Your task to perform on an android device: change your default location settings in chrome Image 0: 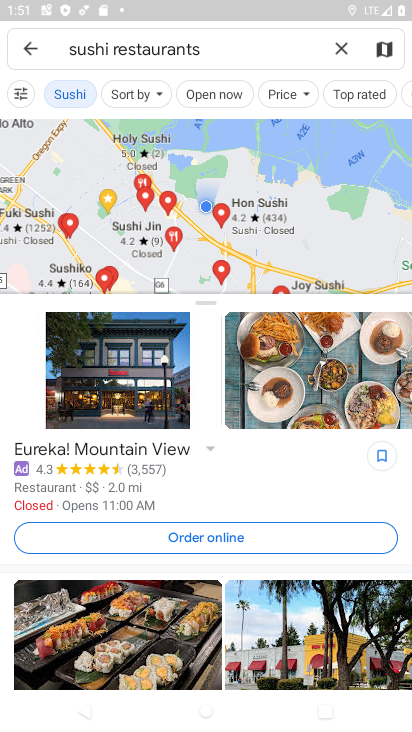
Step 0: press home button
Your task to perform on an android device: change your default location settings in chrome Image 1: 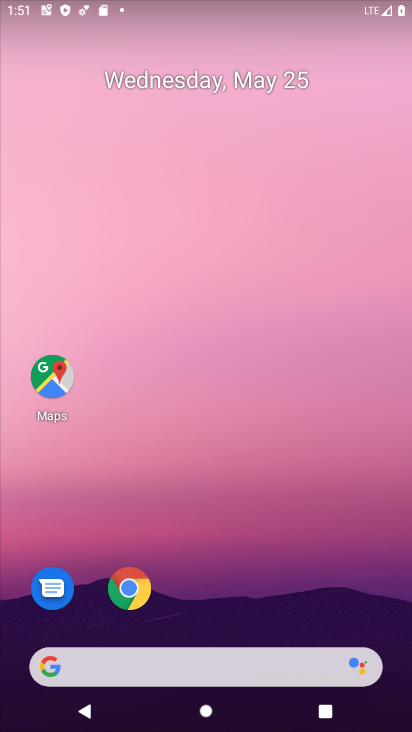
Step 1: click (131, 588)
Your task to perform on an android device: change your default location settings in chrome Image 2: 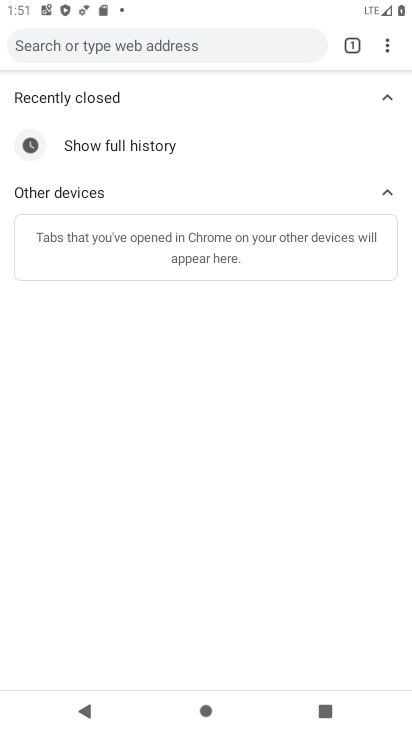
Step 2: click (386, 49)
Your task to perform on an android device: change your default location settings in chrome Image 3: 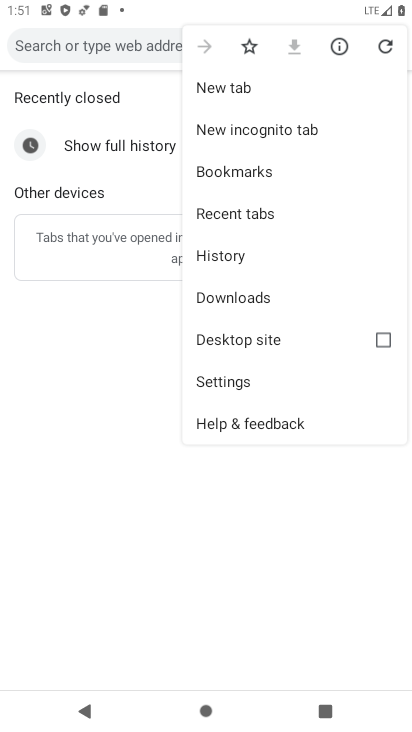
Step 3: click (235, 385)
Your task to perform on an android device: change your default location settings in chrome Image 4: 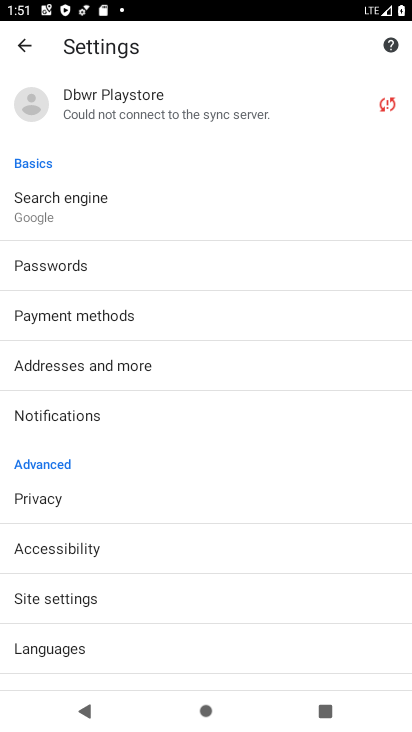
Step 4: click (81, 600)
Your task to perform on an android device: change your default location settings in chrome Image 5: 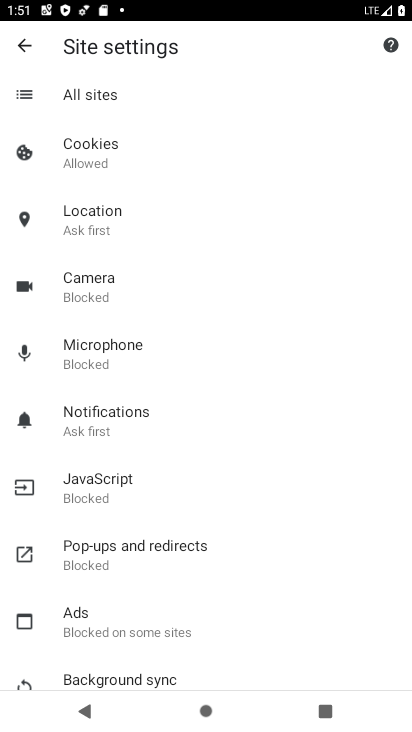
Step 5: click (86, 231)
Your task to perform on an android device: change your default location settings in chrome Image 6: 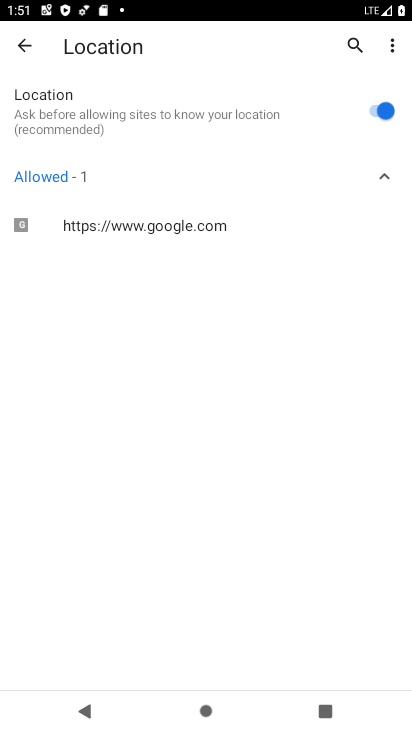
Step 6: click (378, 114)
Your task to perform on an android device: change your default location settings in chrome Image 7: 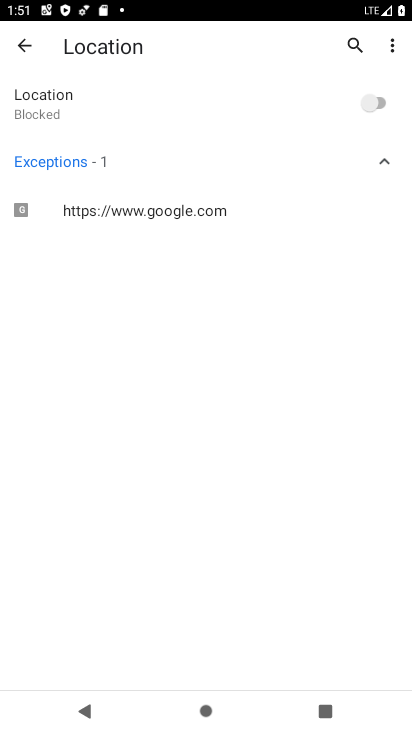
Step 7: task complete